Your task to perform on an android device: change your default location settings in chrome Image 0: 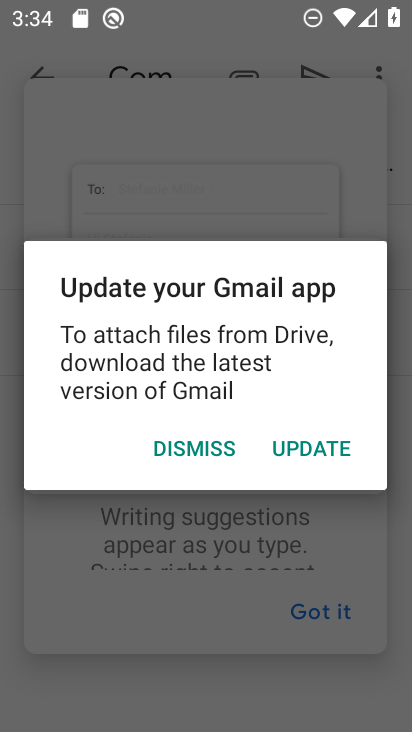
Step 0: press home button
Your task to perform on an android device: change your default location settings in chrome Image 1: 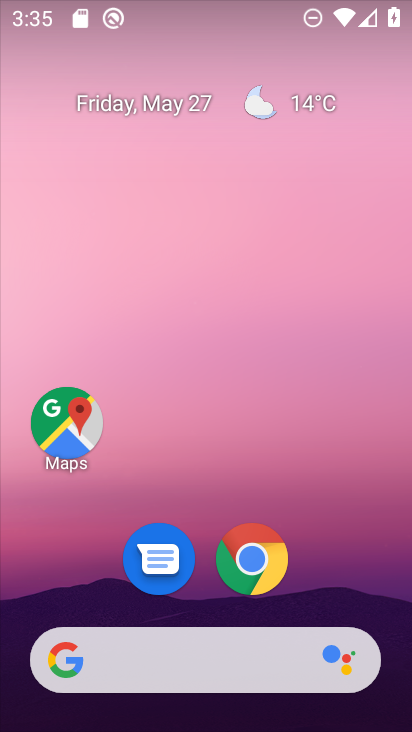
Step 1: drag from (335, 588) to (272, 56)
Your task to perform on an android device: change your default location settings in chrome Image 2: 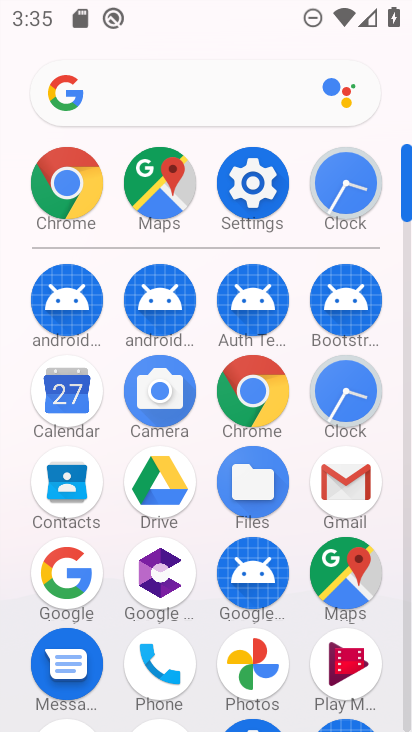
Step 2: click (69, 191)
Your task to perform on an android device: change your default location settings in chrome Image 3: 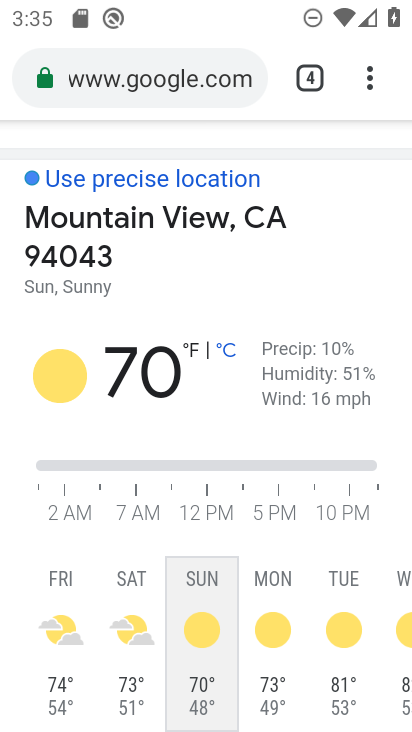
Step 3: click (371, 77)
Your task to perform on an android device: change your default location settings in chrome Image 4: 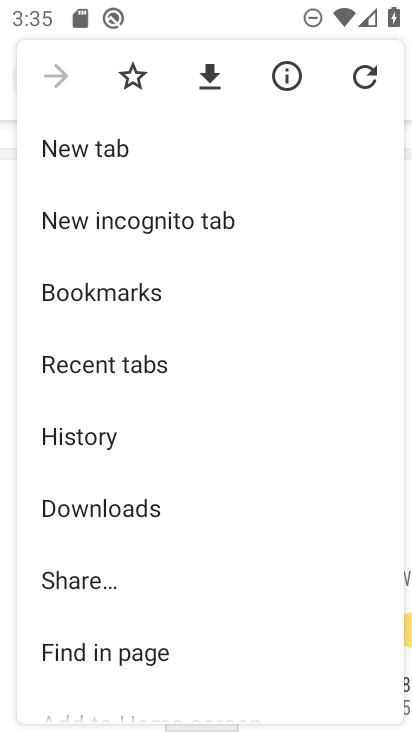
Step 4: drag from (239, 594) to (220, 134)
Your task to perform on an android device: change your default location settings in chrome Image 5: 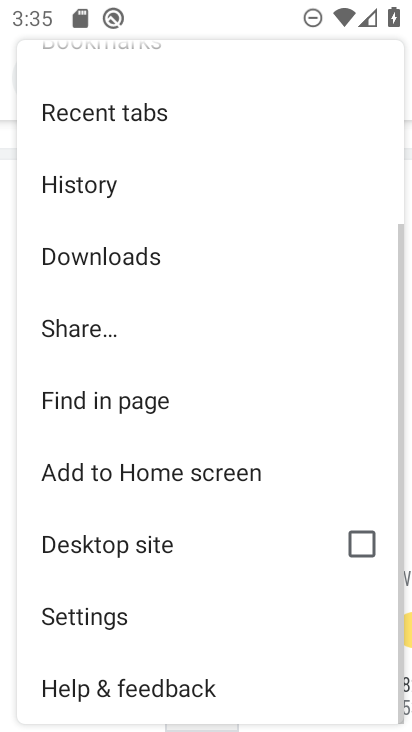
Step 5: click (97, 627)
Your task to perform on an android device: change your default location settings in chrome Image 6: 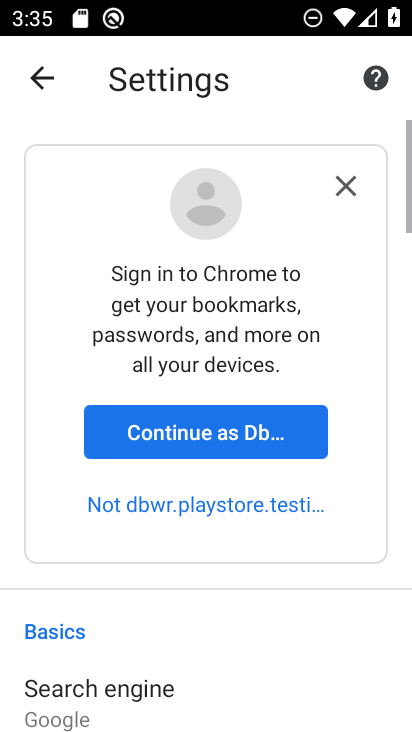
Step 6: drag from (230, 648) to (221, 218)
Your task to perform on an android device: change your default location settings in chrome Image 7: 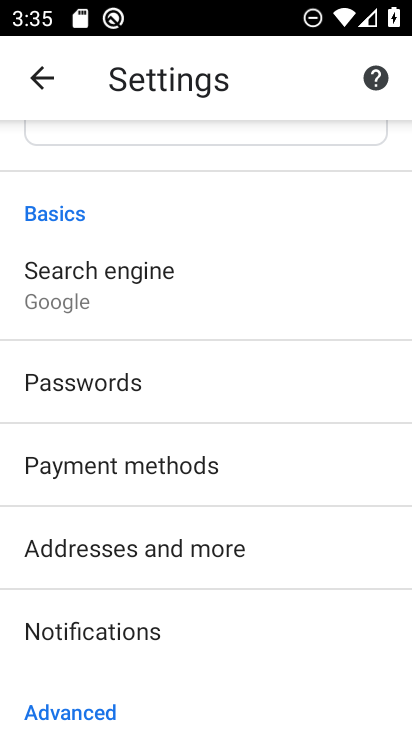
Step 7: drag from (206, 633) to (195, 169)
Your task to perform on an android device: change your default location settings in chrome Image 8: 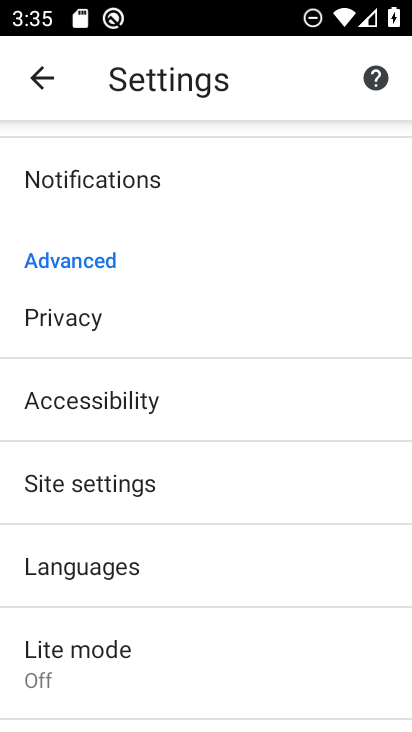
Step 8: drag from (259, 574) to (266, 307)
Your task to perform on an android device: change your default location settings in chrome Image 9: 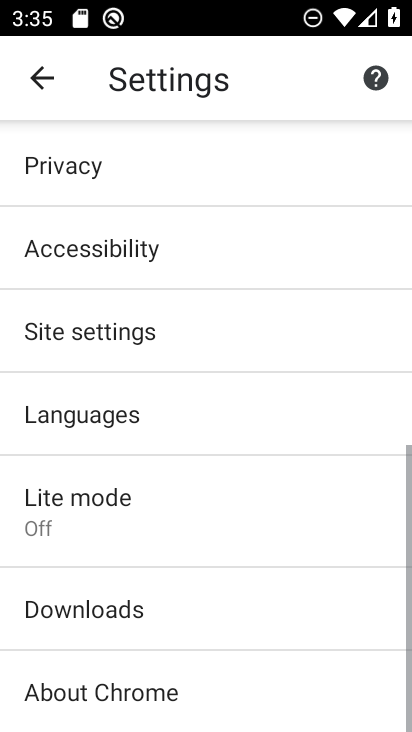
Step 9: click (202, 344)
Your task to perform on an android device: change your default location settings in chrome Image 10: 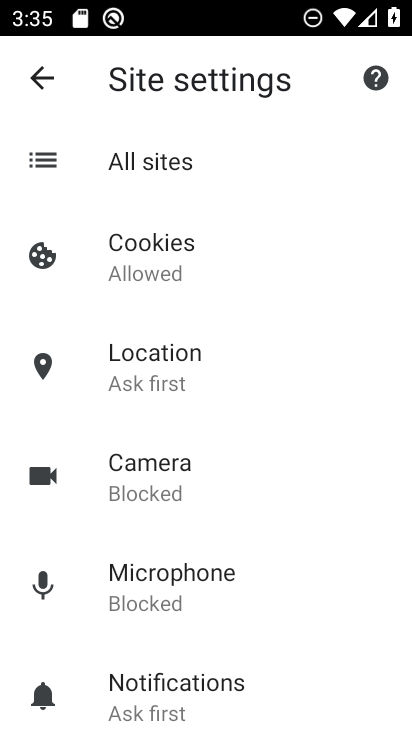
Step 10: click (165, 380)
Your task to perform on an android device: change your default location settings in chrome Image 11: 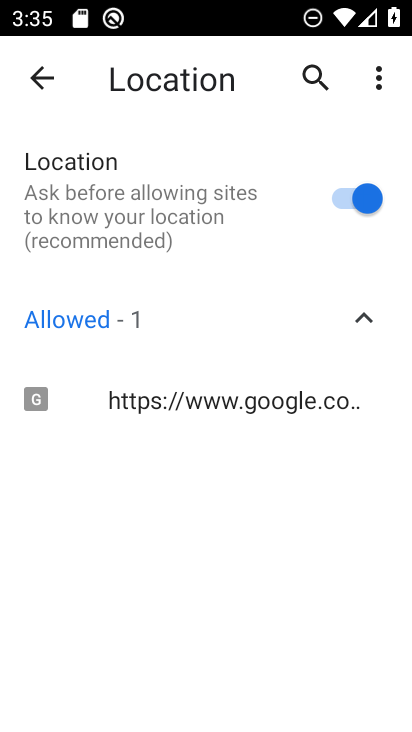
Step 11: click (374, 196)
Your task to perform on an android device: change your default location settings in chrome Image 12: 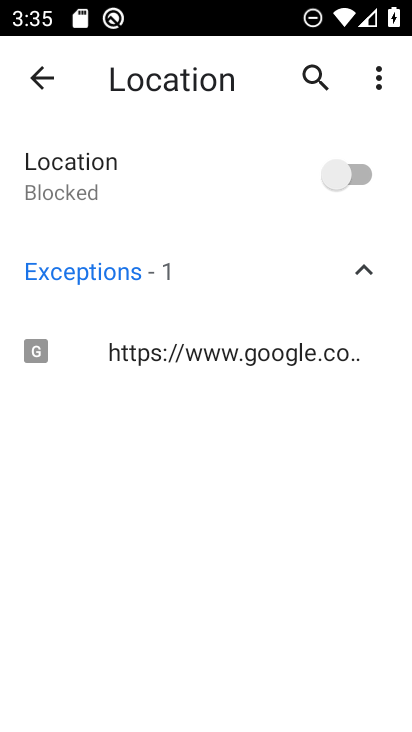
Step 12: click (346, 189)
Your task to perform on an android device: change your default location settings in chrome Image 13: 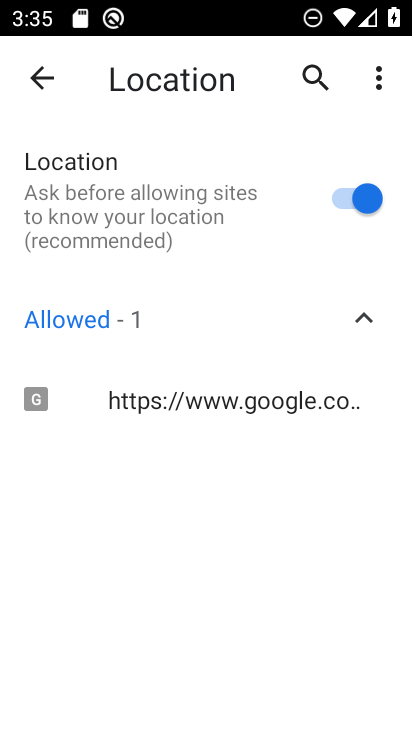
Step 13: click (346, 189)
Your task to perform on an android device: change your default location settings in chrome Image 14: 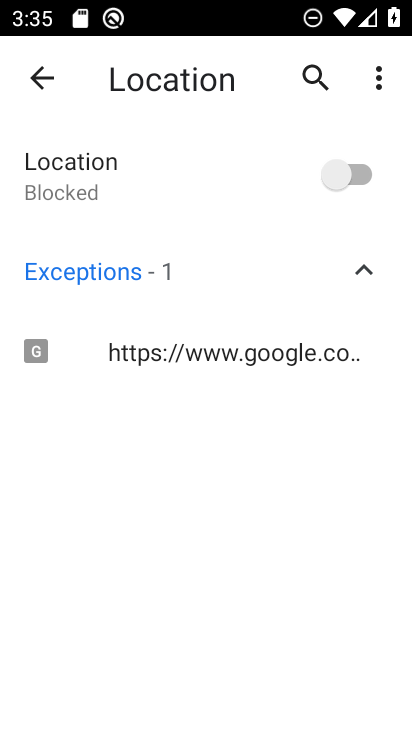
Step 14: task complete